Your task to perform on an android device: open app "Booking.com: Hotels and more" (install if not already installed) and go to login screen Image 0: 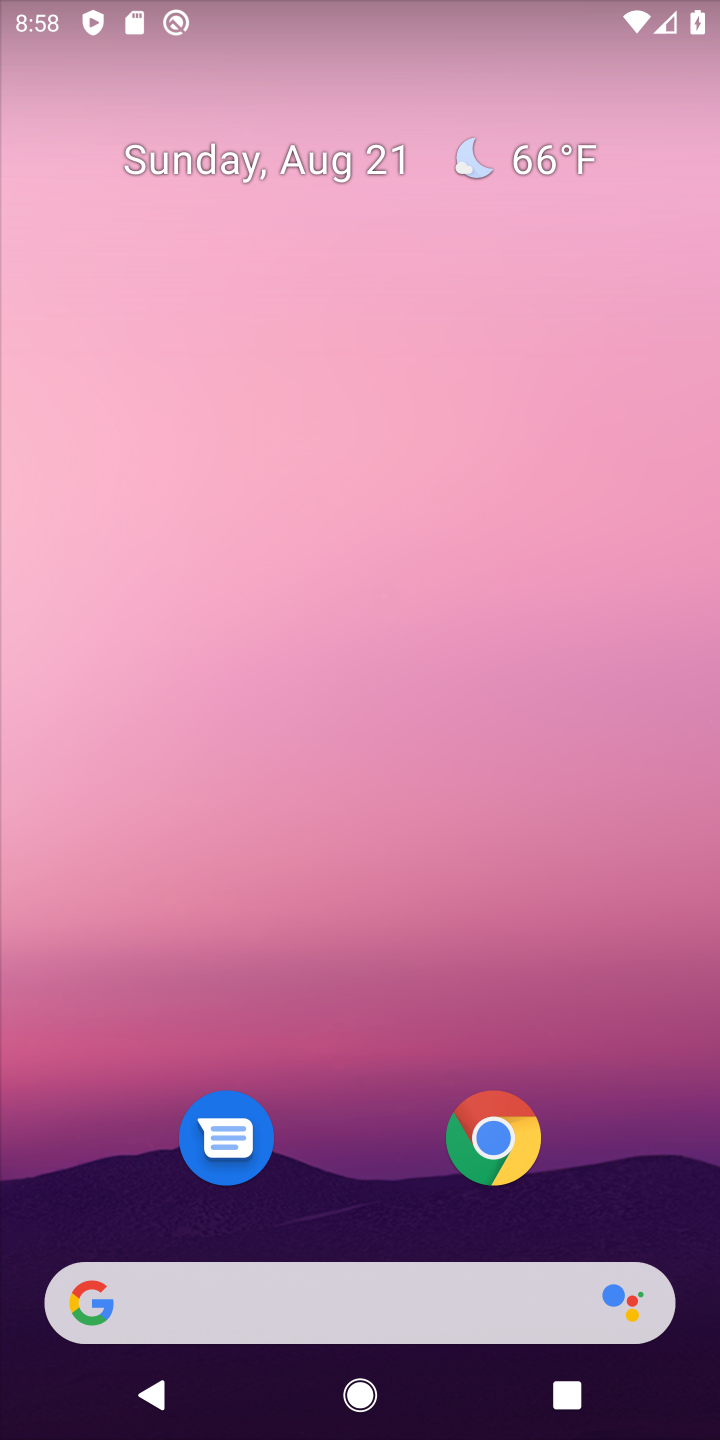
Step 0: drag from (647, 1181) to (603, 157)
Your task to perform on an android device: open app "Booking.com: Hotels and more" (install if not already installed) and go to login screen Image 1: 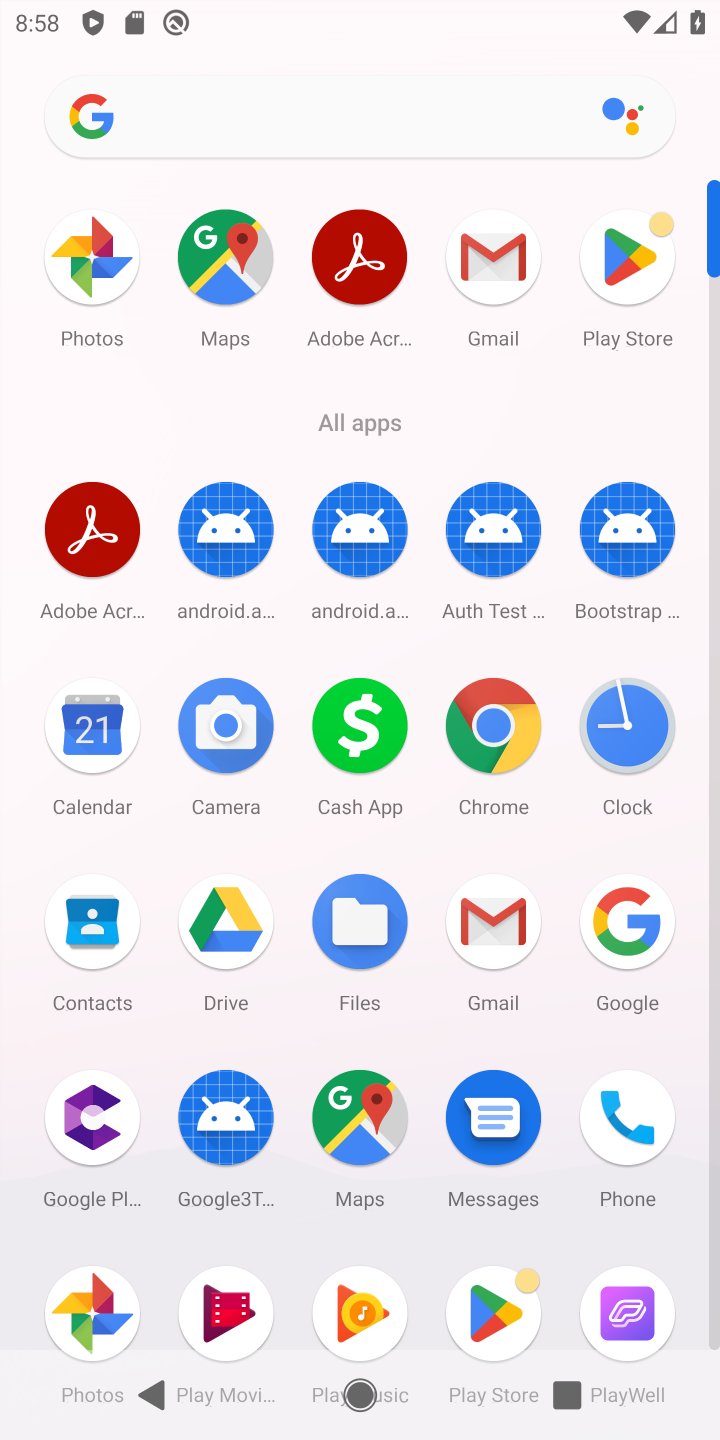
Step 1: click (634, 253)
Your task to perform on an android device: open app "Booking.com: Hotels and more" (install if not already installed) and go to login screen Image 2: 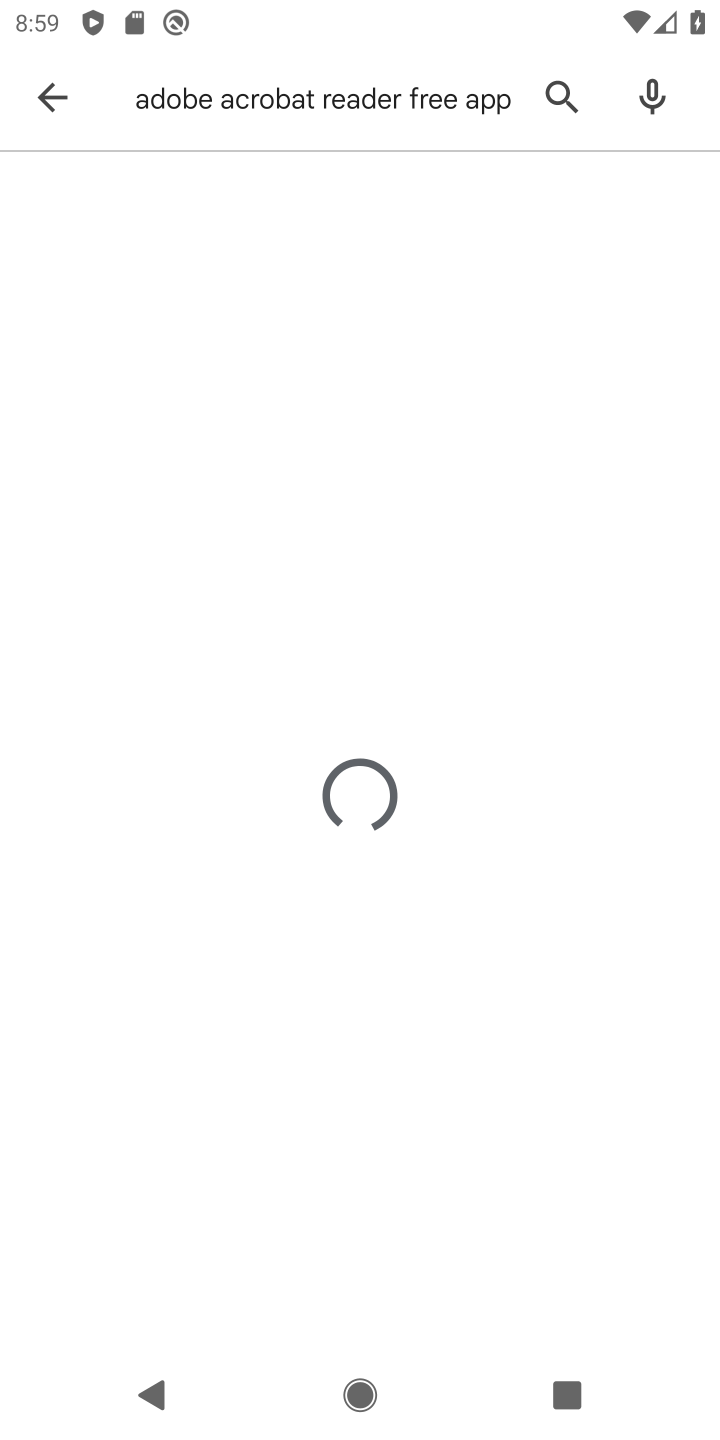
Step 2: press back button
Your task to perform on an android device: open app "Booking.com: Hotels and more" (install if not already installed) and go to login screen Image 3: 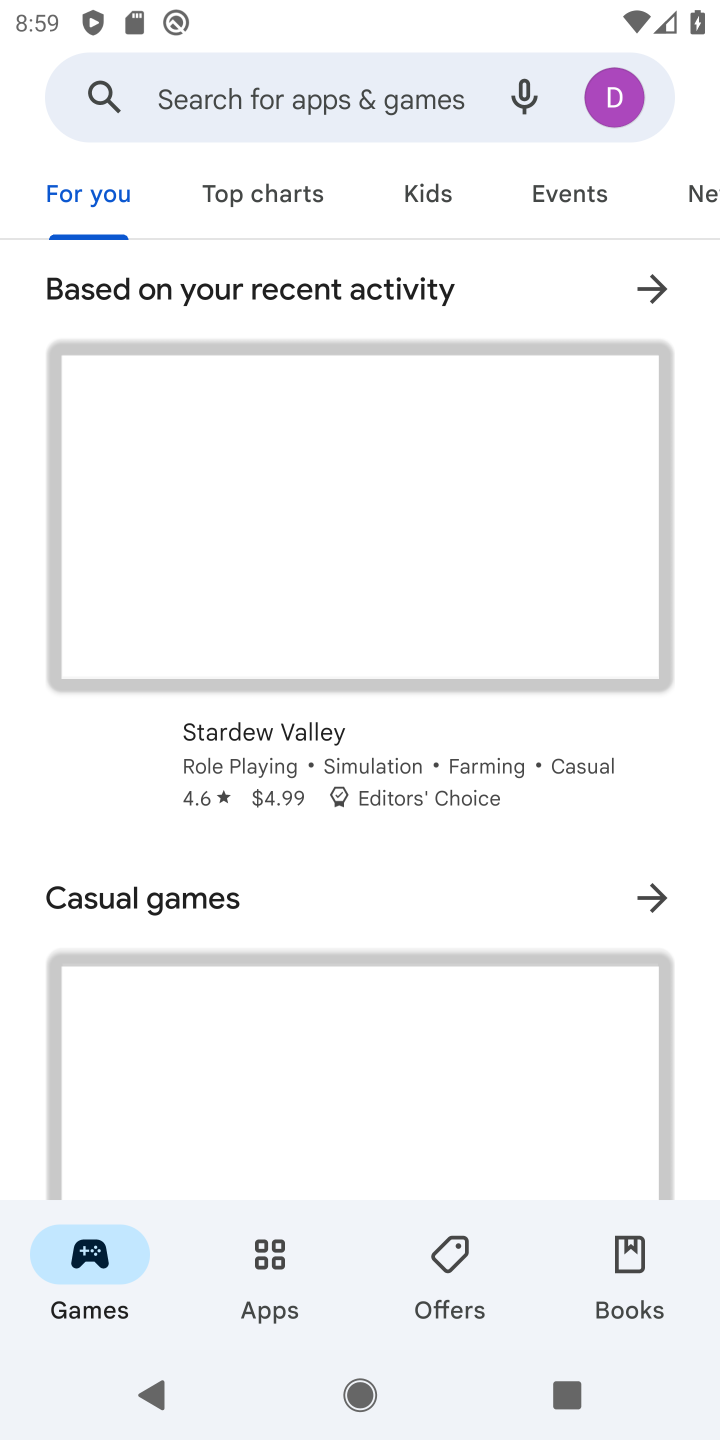
Step 3: click (310, 89)
Your task to perform on an android device: open app "Booking.com: Hotels and more" (install if not already installed) and go to login screen Image 4: 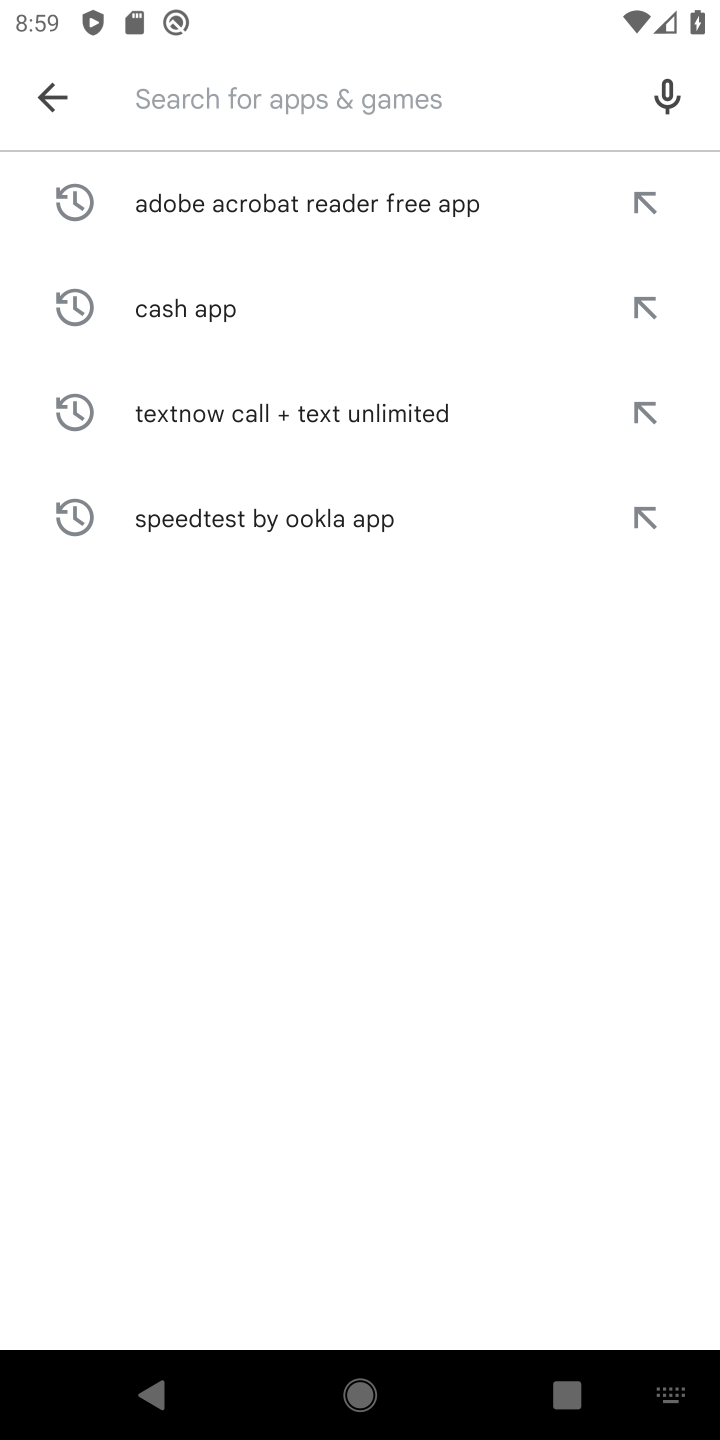
Step 4: type "Booking.com: Hotels and more"
Your task to perform on an android device: open app "Booking.com: Hotels and more" (install if not already installed) and go to login screen Image 5: 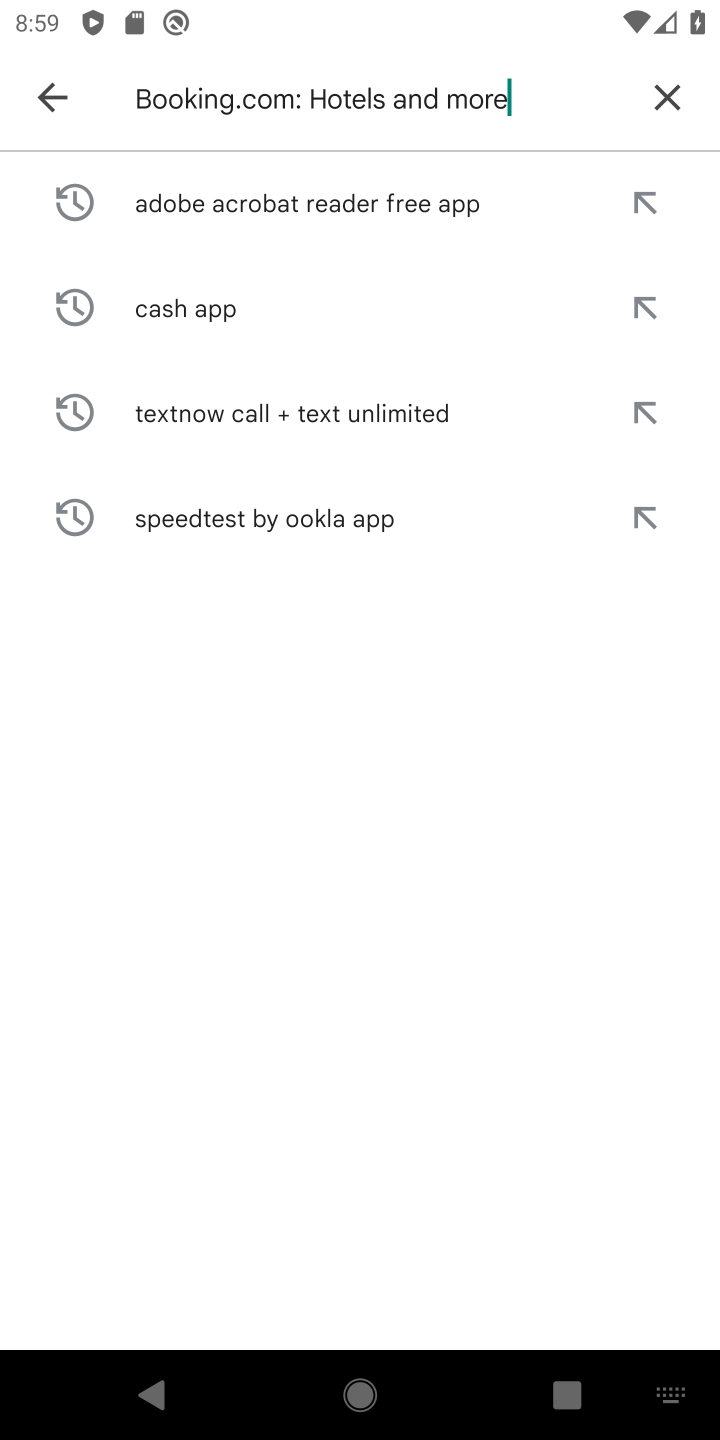
Step 5: press enter
Your task to perform on an android device: open app "Booking.com: Hotels and more" (install if not already installed) and go to login screen Image 6: 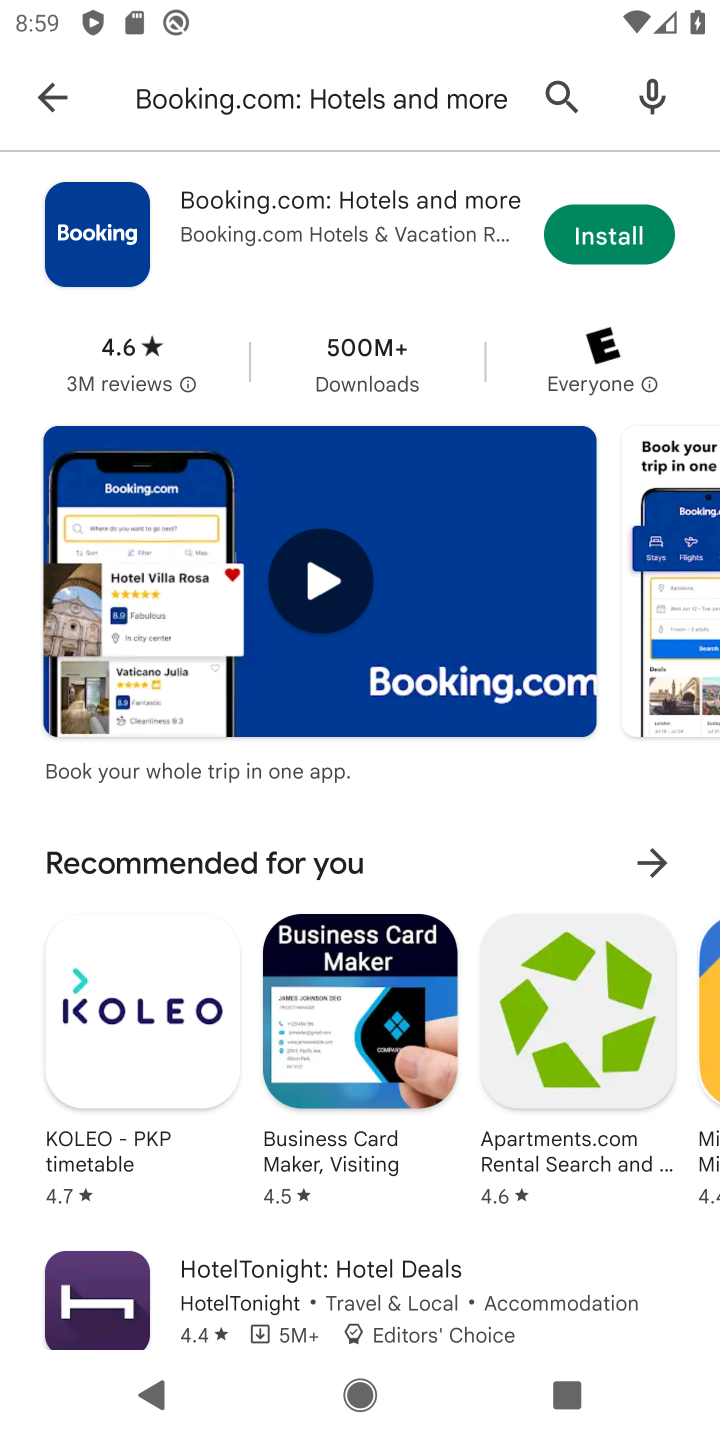
Step 6: click (618, 235)
Your task to perform on an android device: open app "Booking.com: Hotels and more" (install if not already installed) and go to login screen Image 7: 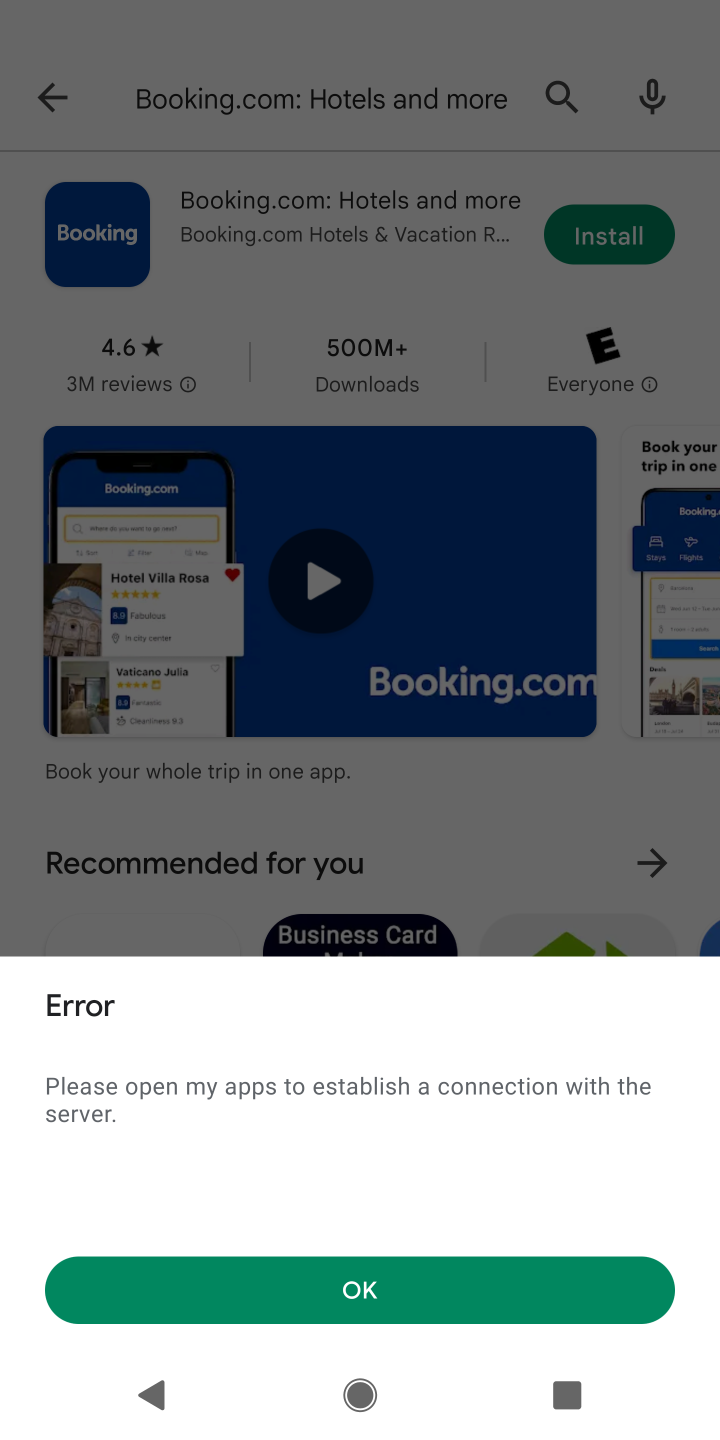
Step 7: task complete